Your task to perform on an android device: Go to Wikipedia Image 0: 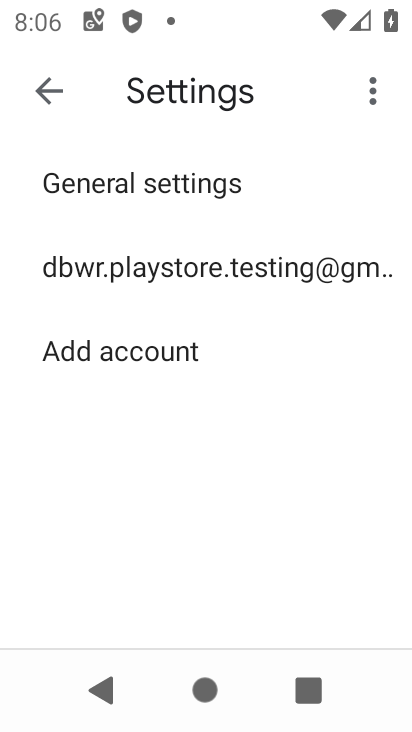
Step 0: press home button
Your task to perform on an android device: Go to Wikipedia Image 1: 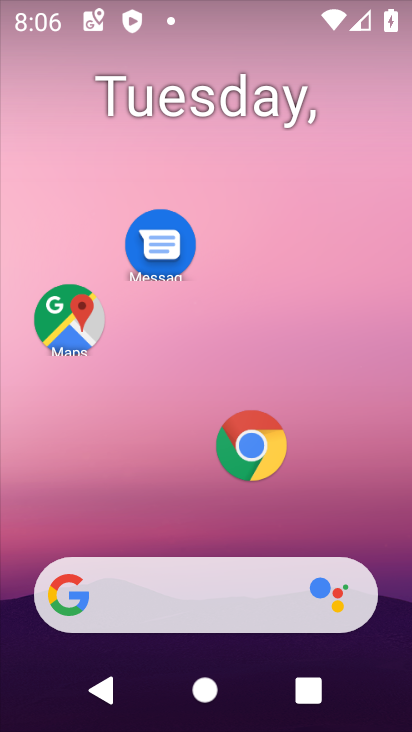
Step 1: click (249, 453)
Your task to perform on an android device: Go to Wikipedia Image 2: 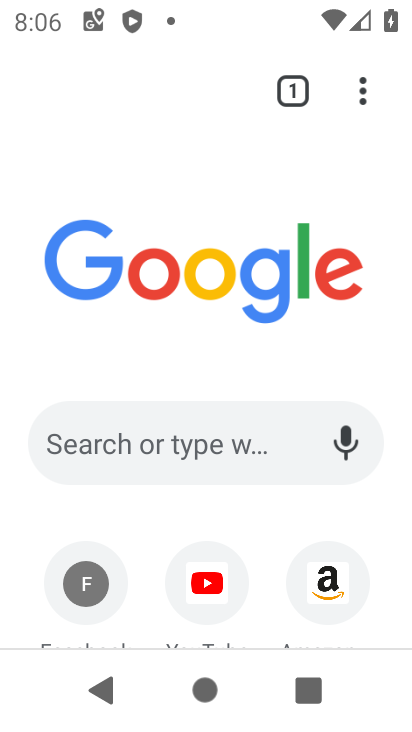
Step 2: drag from (286, 627) to (277, 426)
Your task to perform on an android device: Go to Wikipedia Image 3: 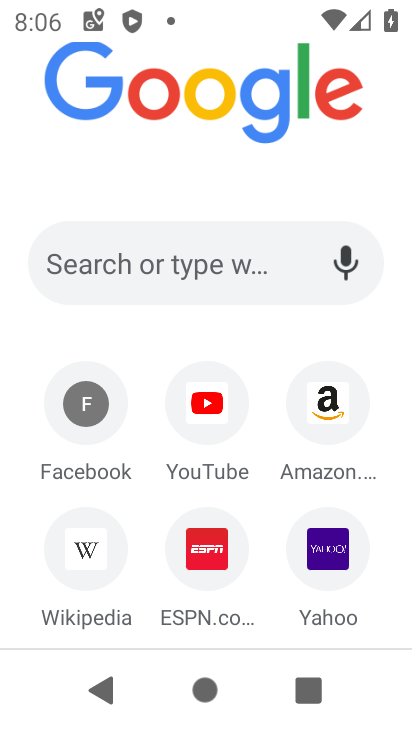
Step 3: click (100, 558)
Your task to perform on an android device: Go to Wikipedia Image 4: 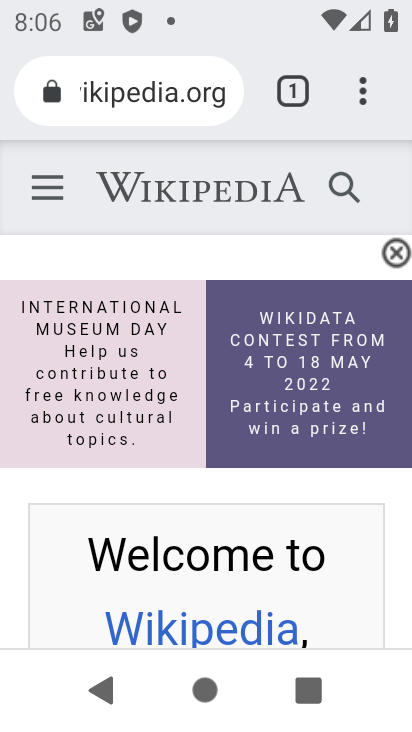
Step 4: task complete